Your task to perform on an android device: change notifications settings Image 0: 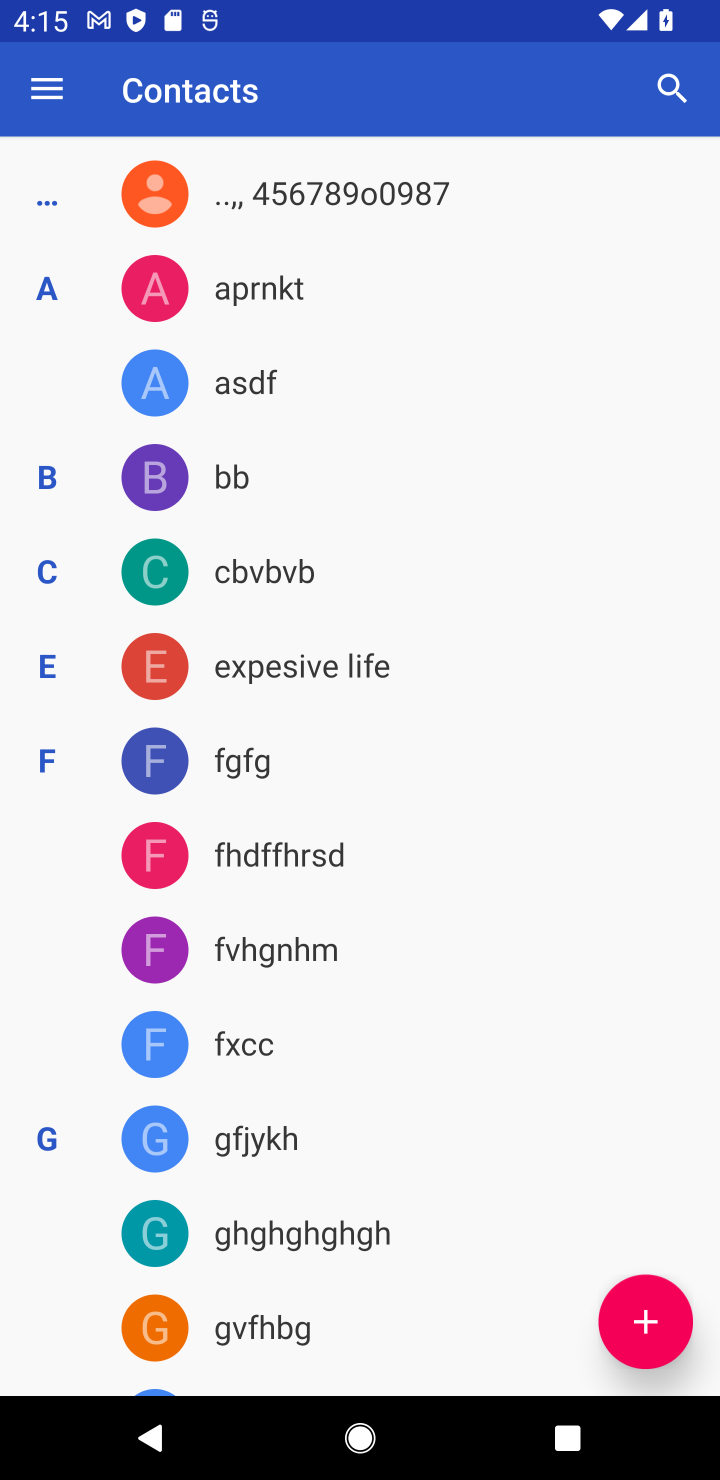
Step 0: press home button
Your task to perform on an android device: change notifications settings Image 1: 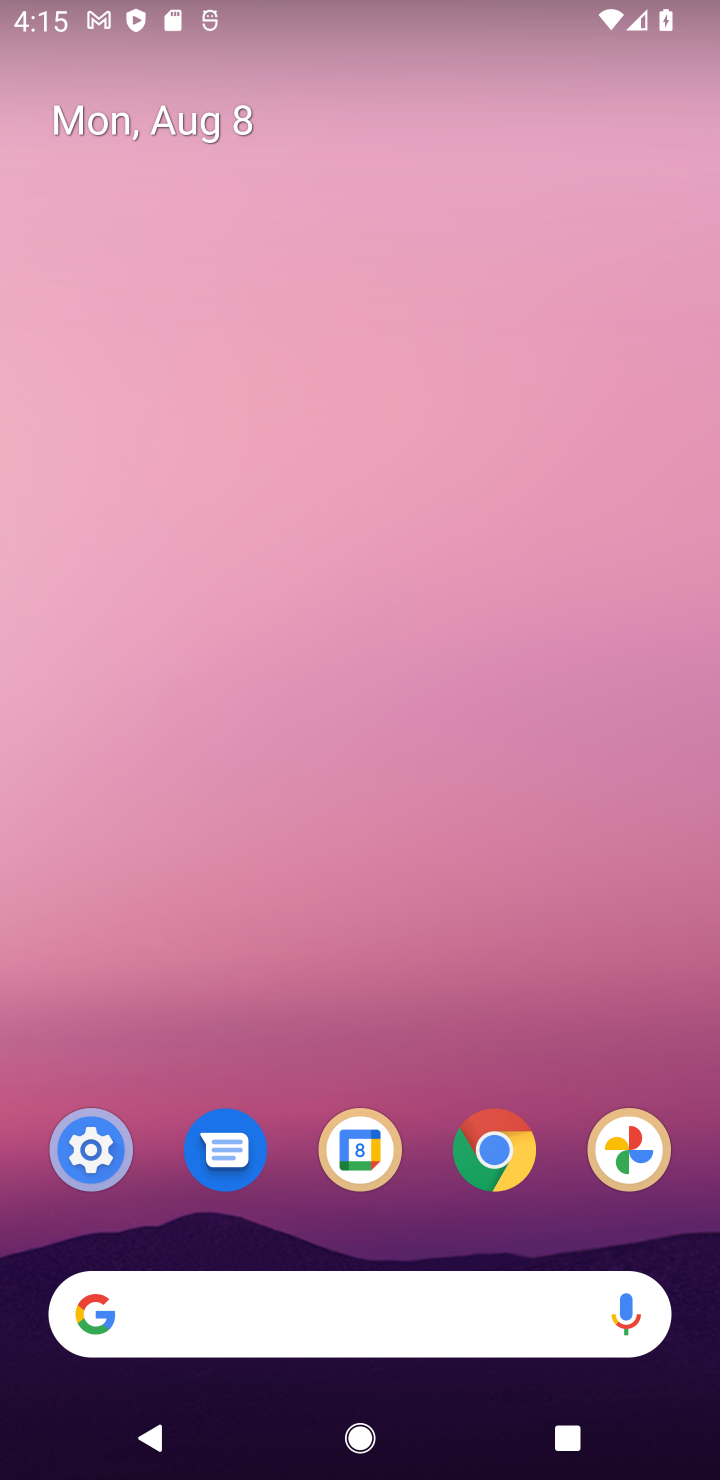
Step 1: click (92, 1152)
Your task to perform on an android device: change notifications settings Image 2: 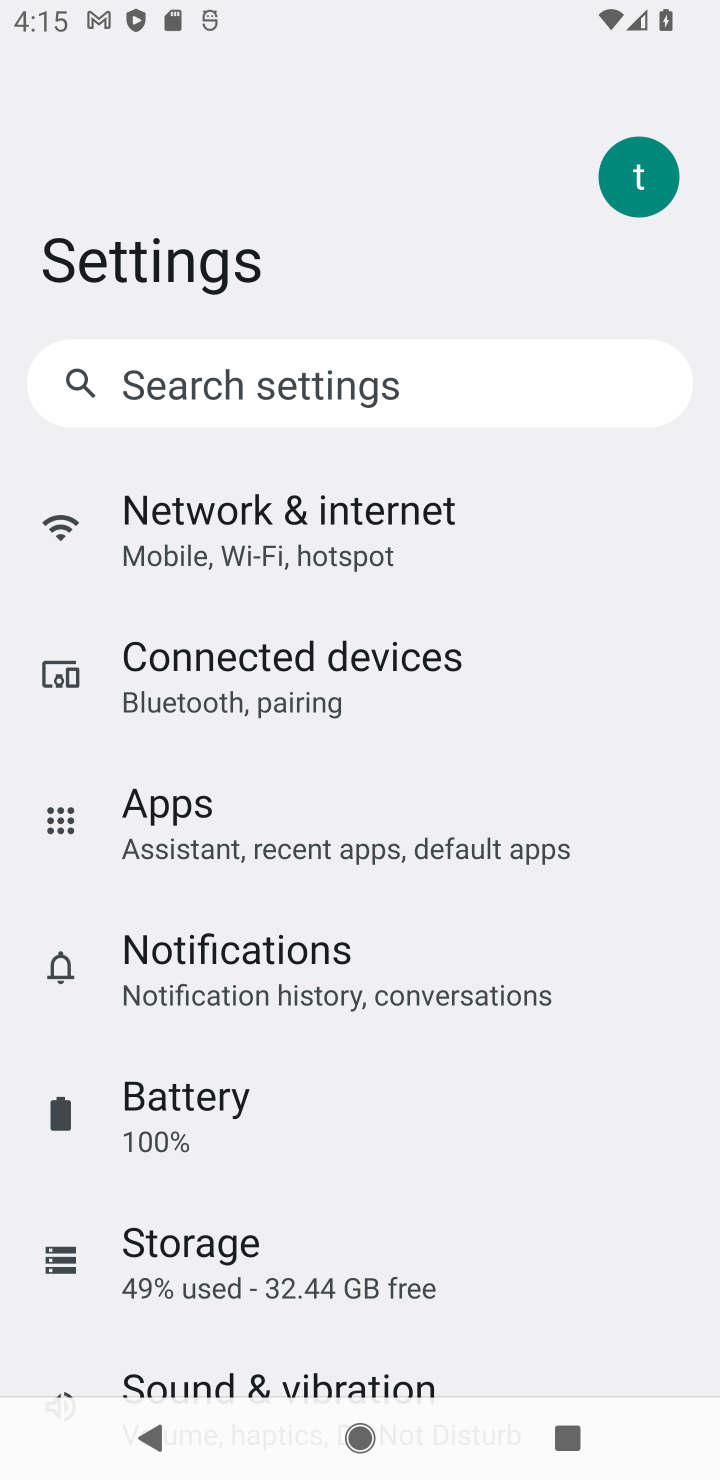
Step 2: task complete